Your task to perform on an android device: check storage Image 0: 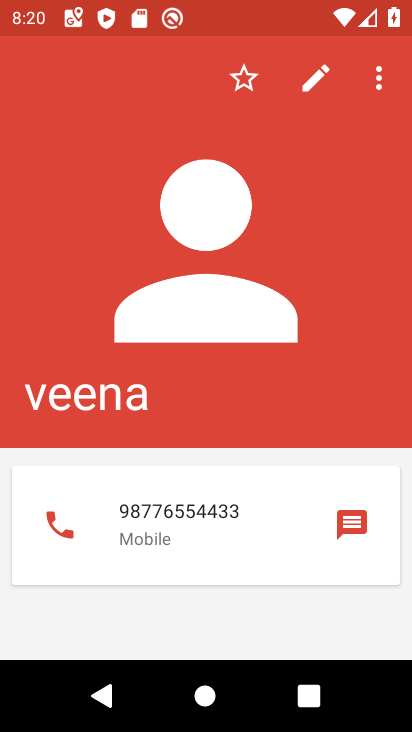
Step 0: press home button
Your task to perform on an android device: check storage Image 1: 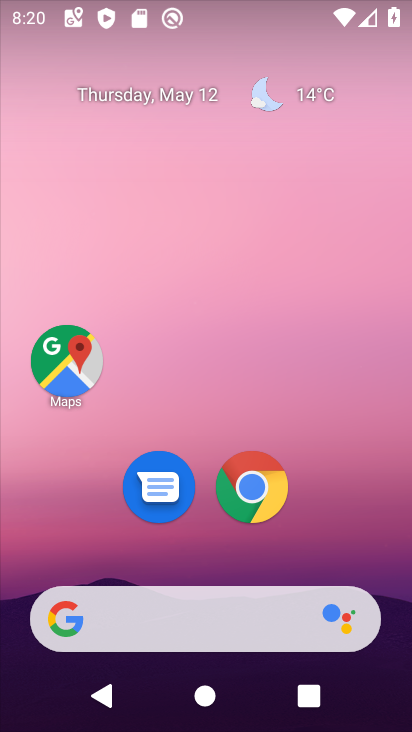
Step 1: drag from (323, 562) to (348, 1)
Your task to perform on an android device: check storage Image 2: 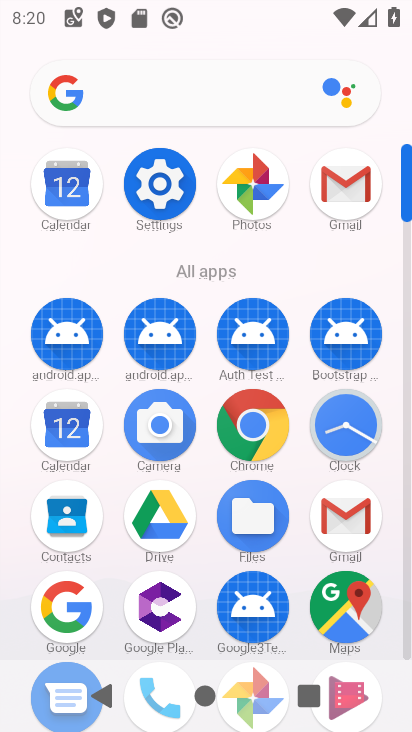
Step 2: click (159, 189)
Your task to perform on an android device: check storage Image 3: 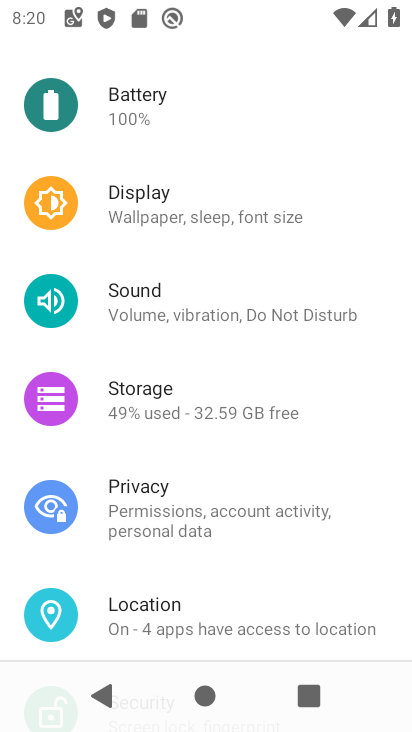
Step 3: click (143, 398)
Your task to perform on an android device: check storage Image 4: 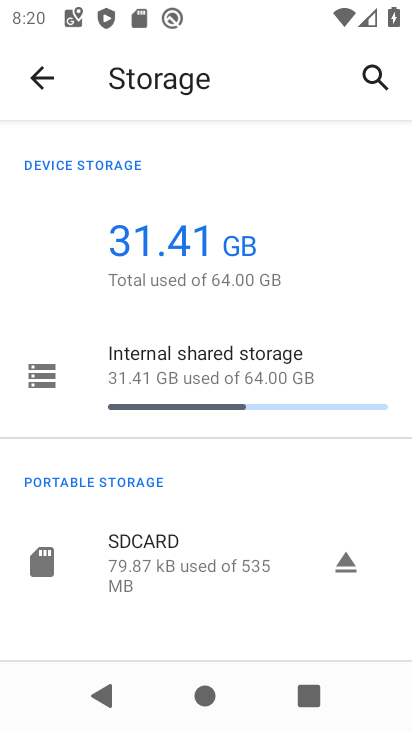
Step 4: click (143, 398)
Your task to perform on an android device: check storage Image 5: 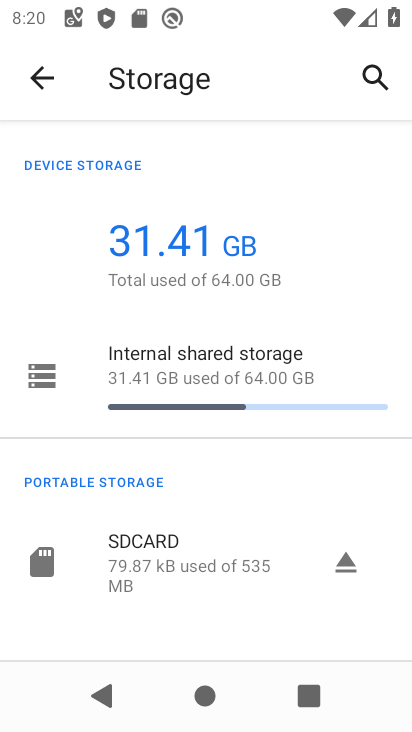
Step 5: click (220, 359)
Your task to perform on an android device: check storage Image 6: 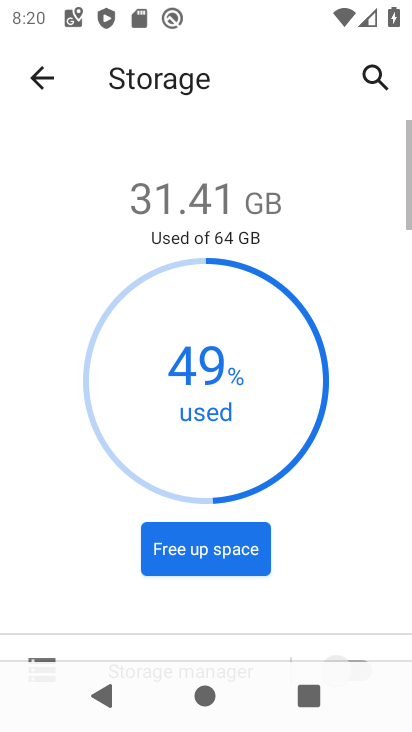
Step 6: task complete